Your task to perform on an android device: allow cookies in the chrome app Image 0: 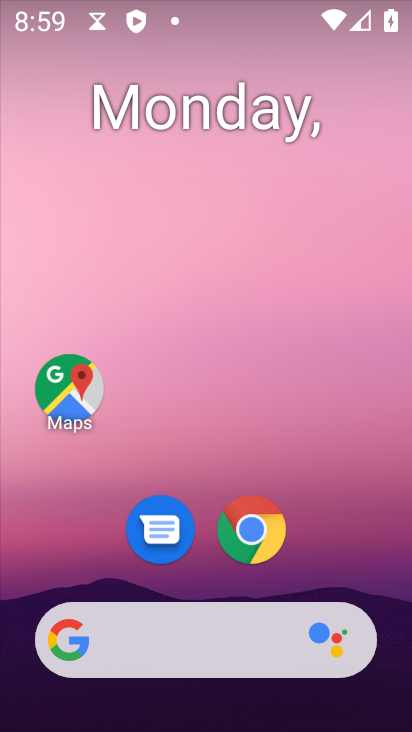
Step 0: drag from (293, 691) to (203, 180)
Your task to perform on an android device: allow cookies in the chrome app Image 1: 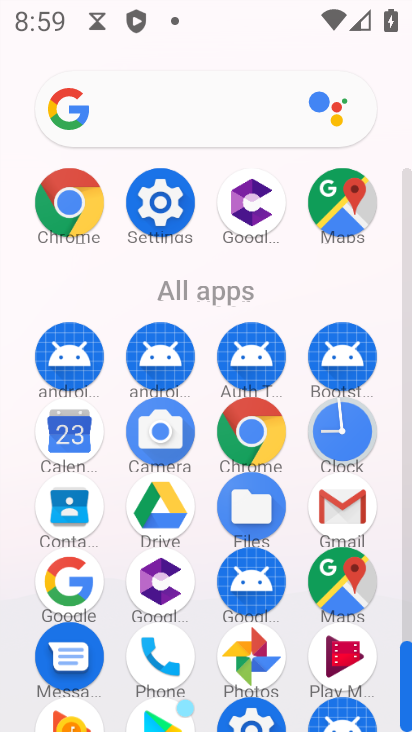
Step 1: click (58, 213)
Your task to perform on an android device: allow cookies in the chrome app Image 2: 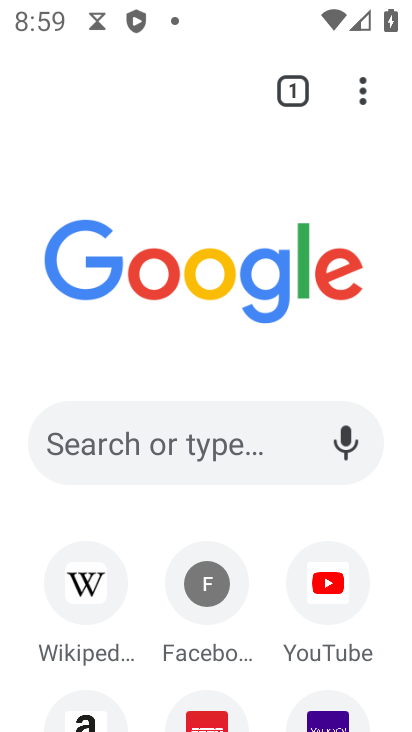
Step 2: drag from (360, 87) to (93, 555)
Your task to perform on an android device: allow cookies in the chrome app Image 3: 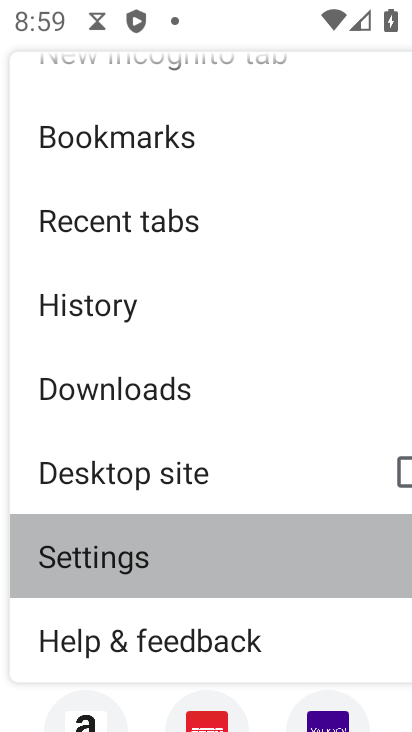
Step 3: click (96, 556)
Your task to perform on an android device: allow cookies in the chrome app Image 4: 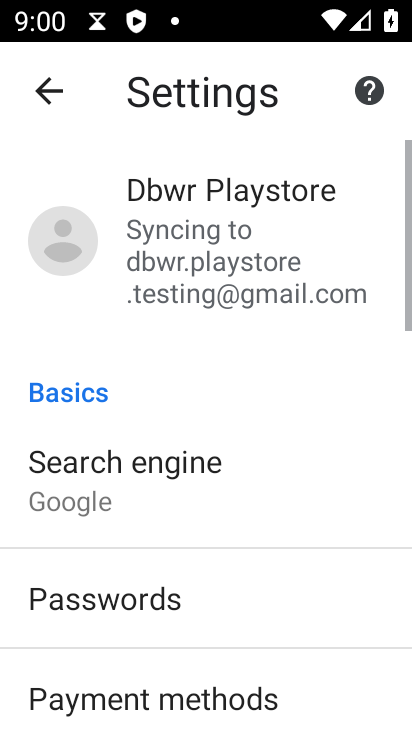
Step 4: drag from (124, 543) to (74, 145)
Your task to perform on an android device: allow cookies in the chrome app Image 5: 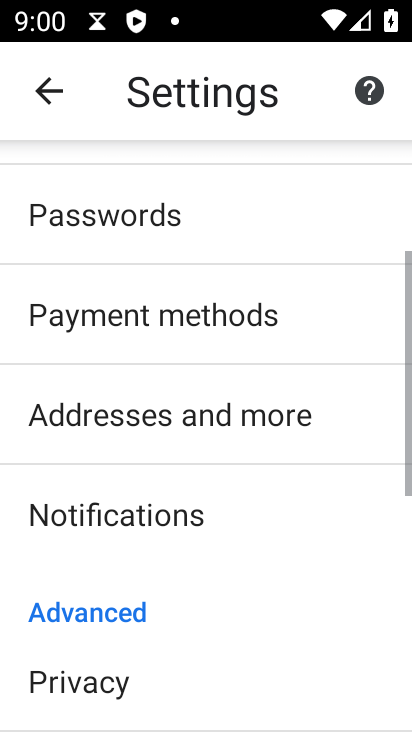
Step 5: drag from (228, 501) to (203, 203)
Your task to perform on an android device: allow cookies in the chrome app Image 6: 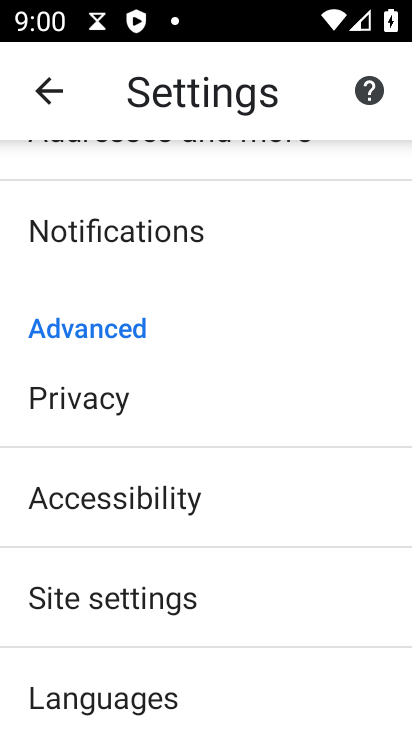
Step 6: drag from (143, 602) to (152, 275)
Your task to perform on an android device: allow cookies in the chrome app Image 7: 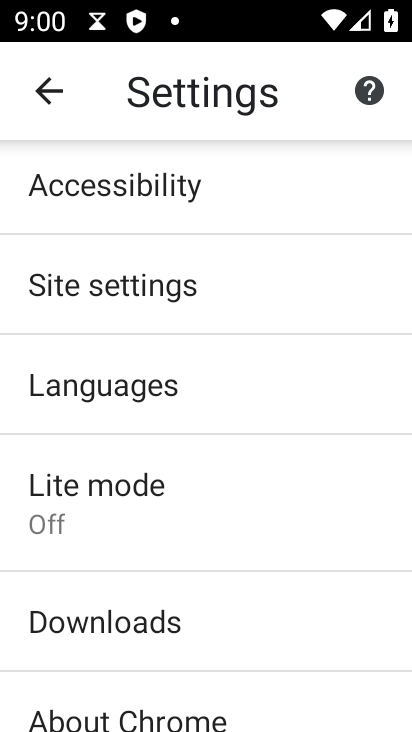
Step 7: drag from (109, 278) to (159, 644)
Your task to perform on an android device: allow cookies in the chrome app Image 8: 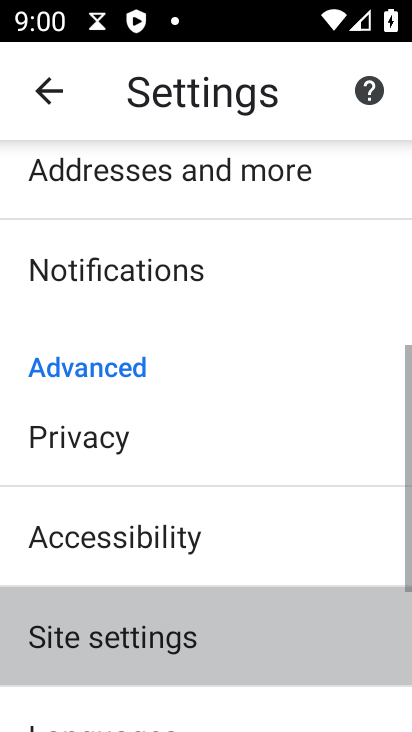
Step 8: drag from (134, 272) to (186, 501)
Your task to perform on an android device: allow cookies in the chrome app Image 9: 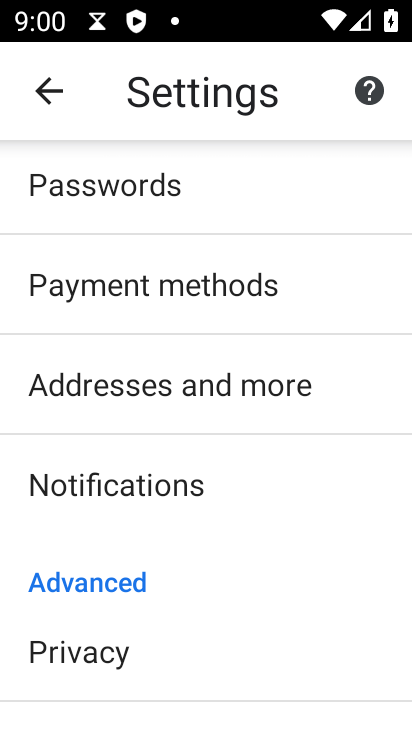
Step 9: drag from (114, 543) to (110, 153)
Your task to perform on an android device: allow cookies in the chrome app Image 10: 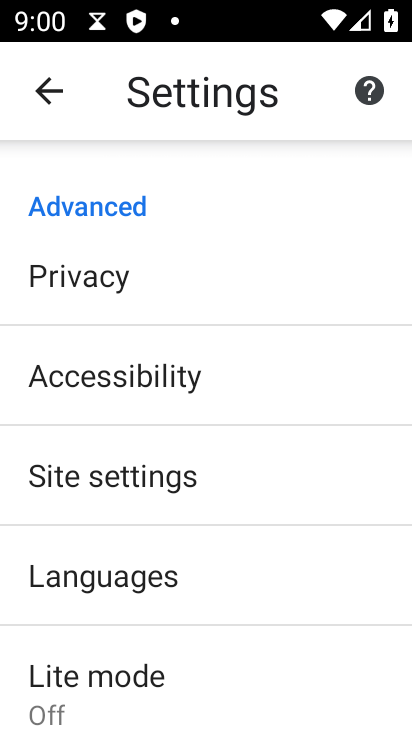
Step 10: click (105, 488)
Your task to perform on an android device: allow cookies in the chrome app Image 11: 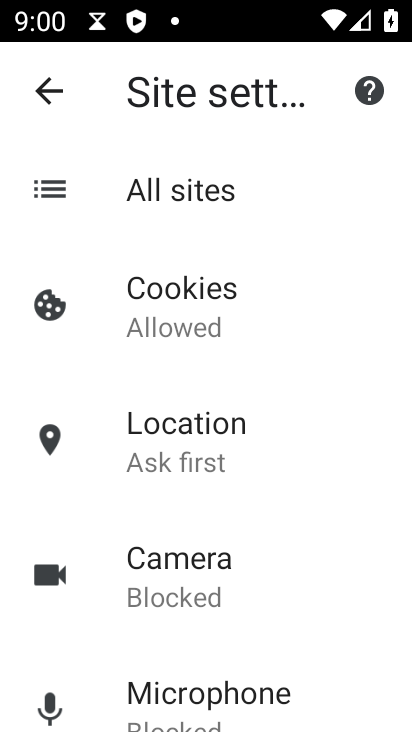
Step 11: click (161, 303)
Your task to perform on an android device: allow cookies in the chrome app Image 12: 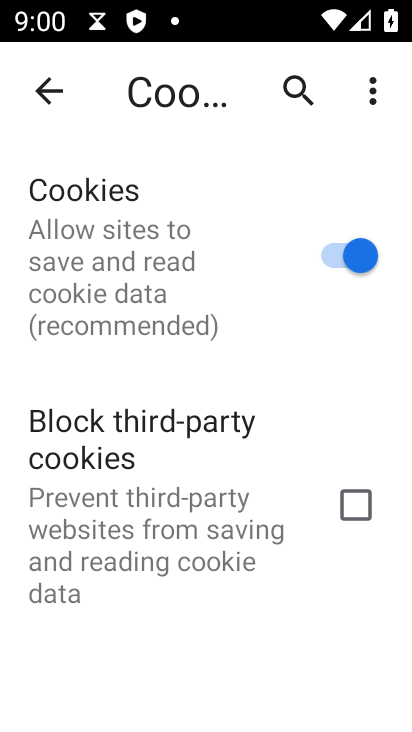
Step 12: task complete